Your task to perform on an android device: visit the assistant section in the google photos Image 0: 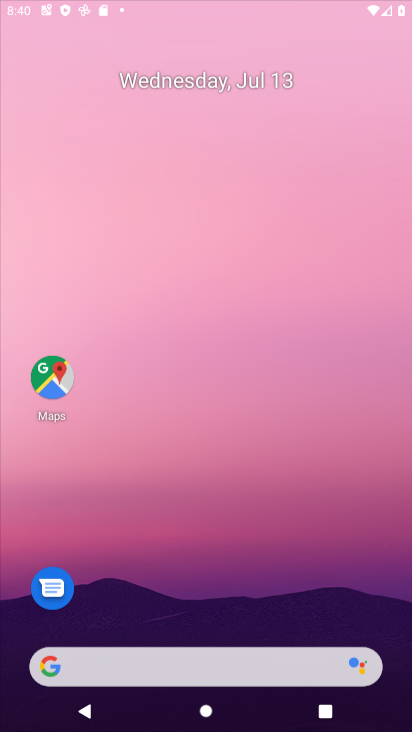
Step 0: drag from (317, 416) to (302, 128)
Your task to perform on an android device: visit the assistant section in the google photos Image 1: 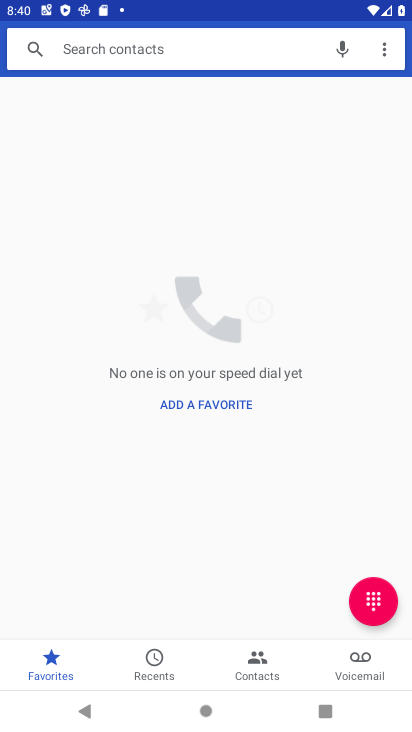
Step 1: press home button
Your task to perform on an android device: visit the assistant section in the google photos Image 2: 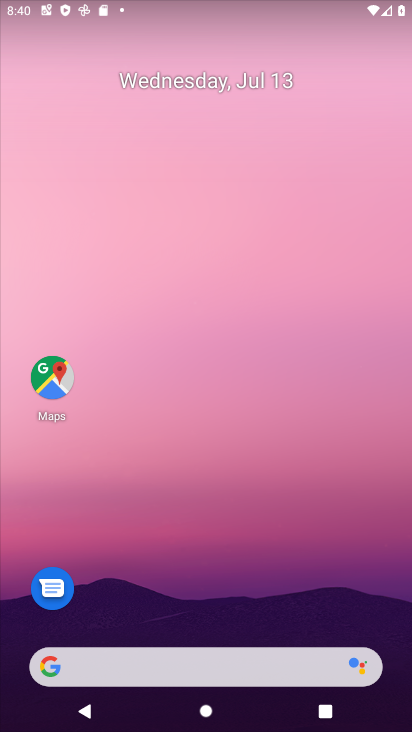
Step 2: drag from (260, 721) to (365, 47)
Your task to perform on an android device: visit the assistant section in the google photos Image 3: 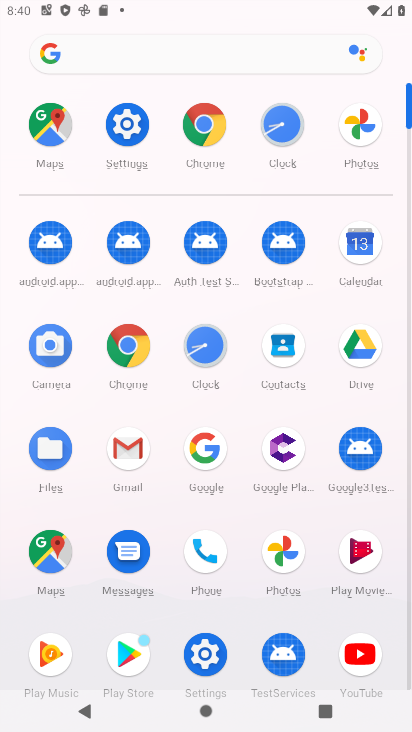
Step 3: click (378, 136)
Your task to perform on an android device: visit the assistant section in the google photos Image 4: 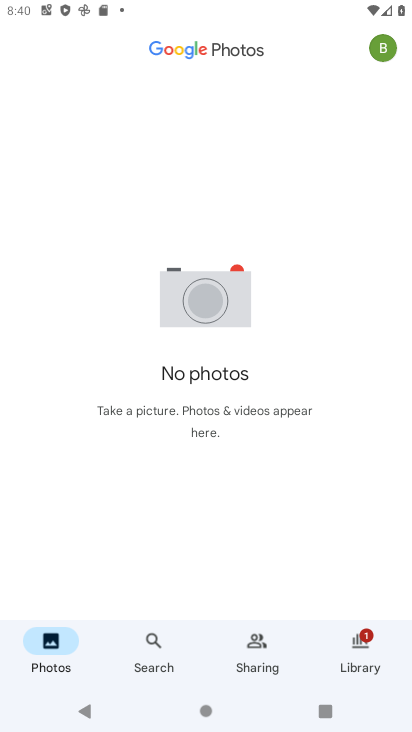
Step 4: task complete